Your task to perform on an android device: find snoozed emails in the gmail app Image 0: 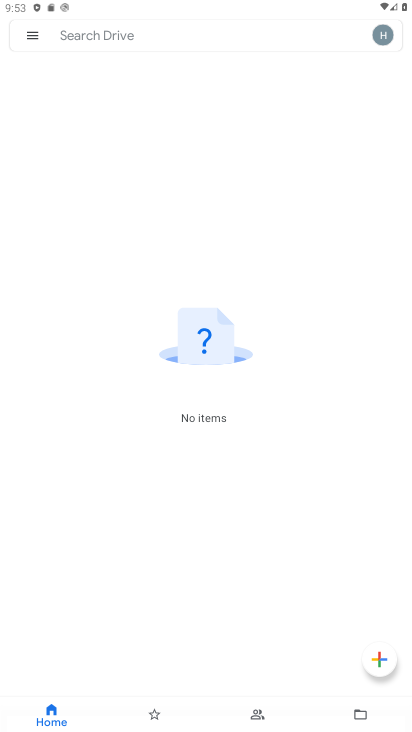
Step 0: press home button
Your task to perform on an android device: find snoozed emails in the gmail app Image 1: 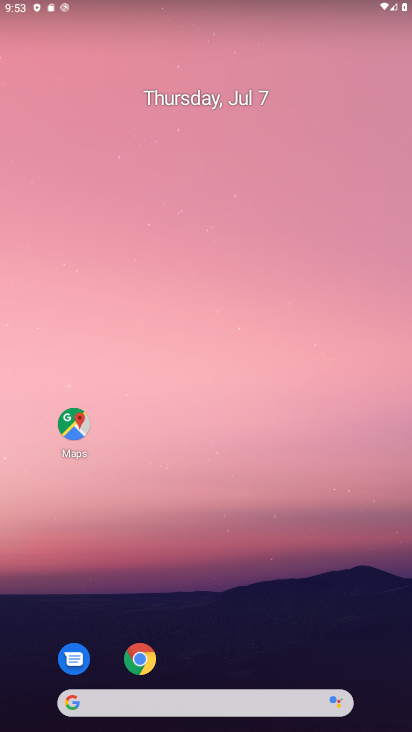
Step 1: drag from (185, 693) to (189, 131)
Your task to perform on an android device: find snoozed emails in the gmail app Image 2: 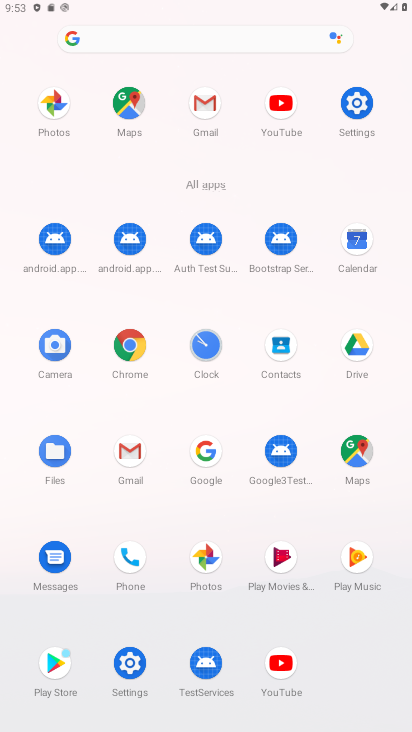
Step 2: click (209, 98)
Your task to perform on an android device: find snoozed emails in the gmail app Image 3: 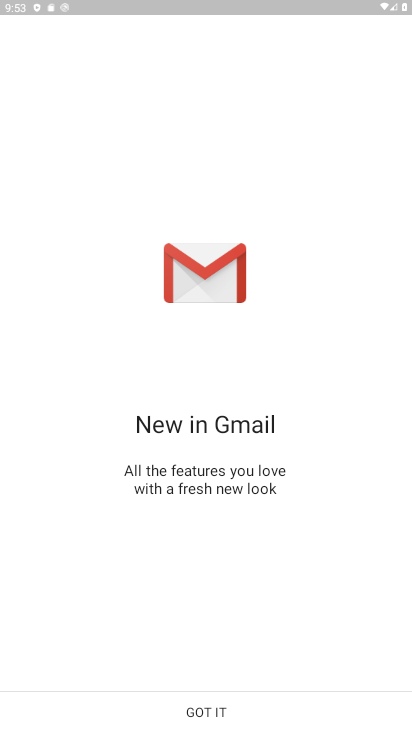
Step 3: click (205, 726)
Your task to perform on an android device: find snoozed emails in the gmail app Image 4: 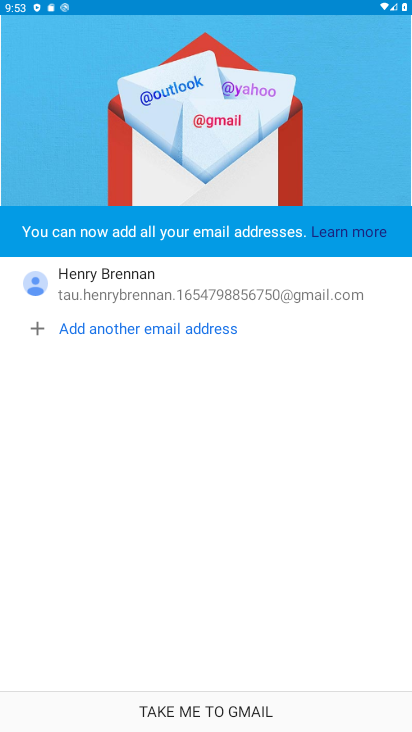
Step 4: click (192, 709)
Your task to perform on an android device: find snoozed emails in the gmail app Image 5: 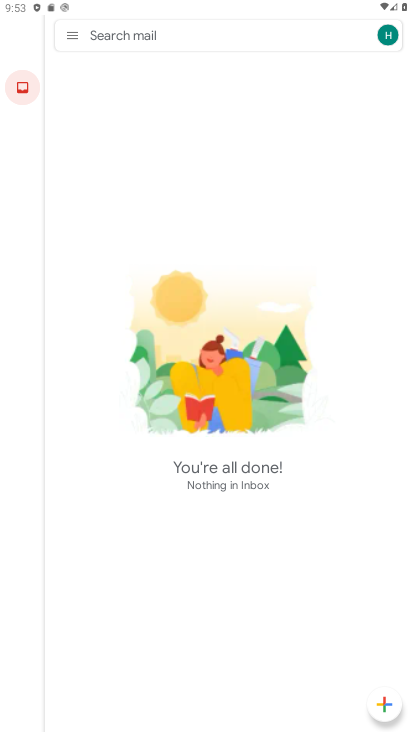
Step 5: click (69, 39)
Your task to perform on an android device: find snoozed emails in the gmail app Image 6: 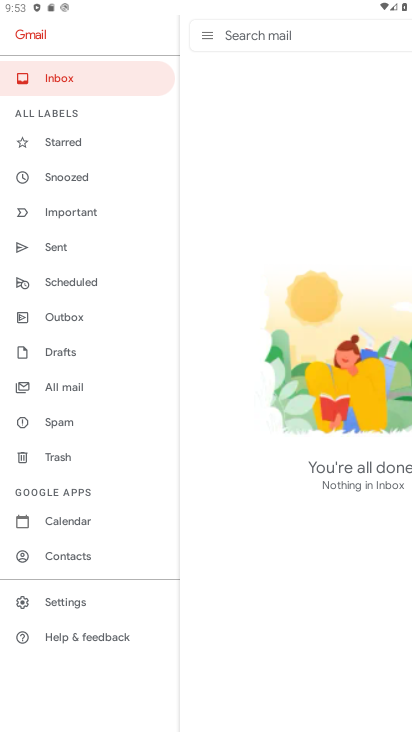
Step 6: click (91, 175)
Your task to perform on an android device: find snoozed emails in the gmail app Image 7: 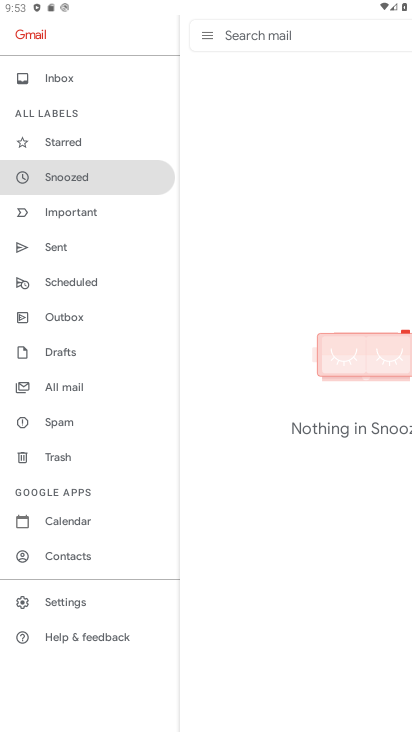
Step 7: task complete